Your task to perform on an android device: What is the recent news? Image 0: 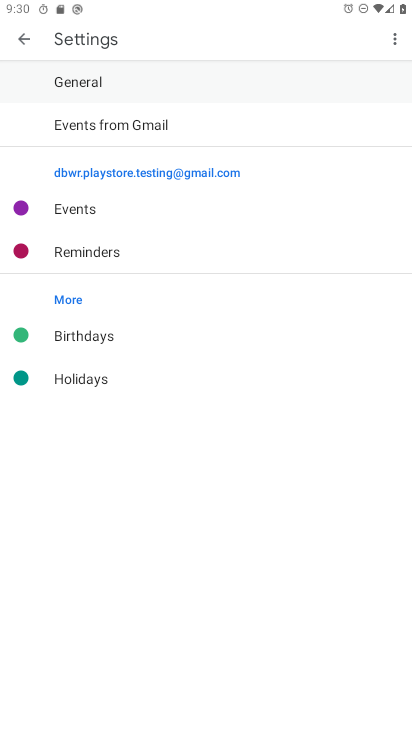
Step 0: press home button
Your task to perform on an android device: What is the recent news? Image 1: 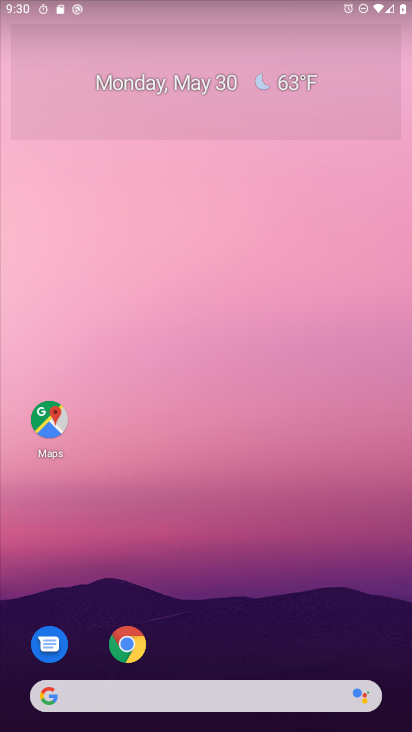
Step 1: drag from (216, 644) to (240, 67)
Your task to perform on an android device: What is the recent news? Image 2: 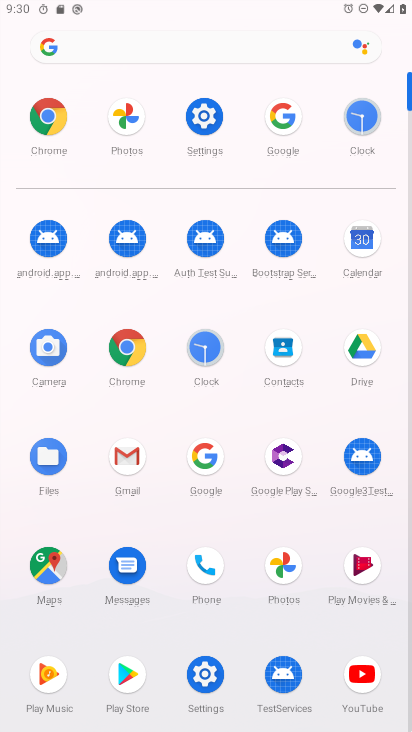
Step 2: click (282, 117)
Your task to perform on an android device: What is the recent news? Image 3: 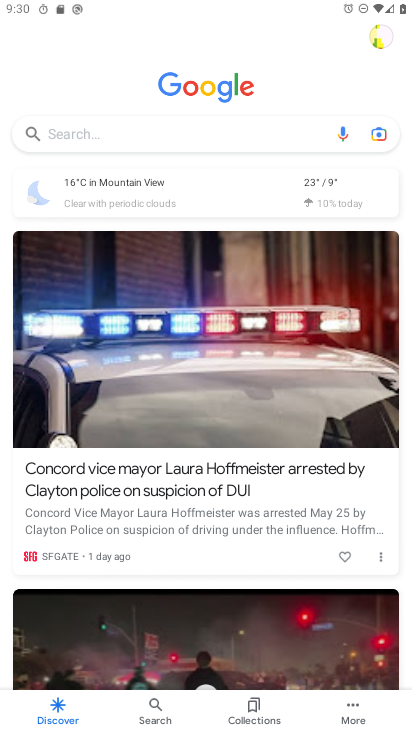
Step 3: click (141, 128)
Your task to perform on an android device: What is the recent news? Image 4: 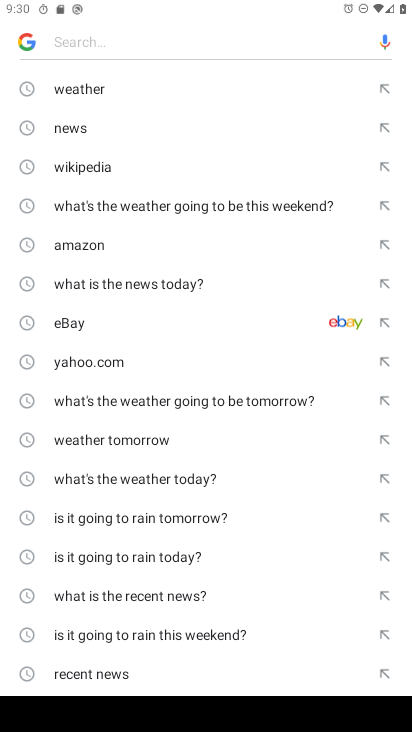
Step 4: click (125, 670)
Your task to perform on an android device: What is the recent news? Image 5: 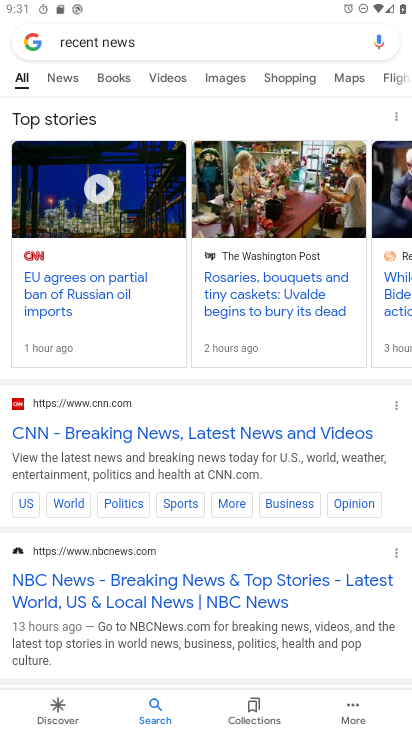
Step 5: task complete